Your task to perform on an android device: Go to Amazon Image 0: 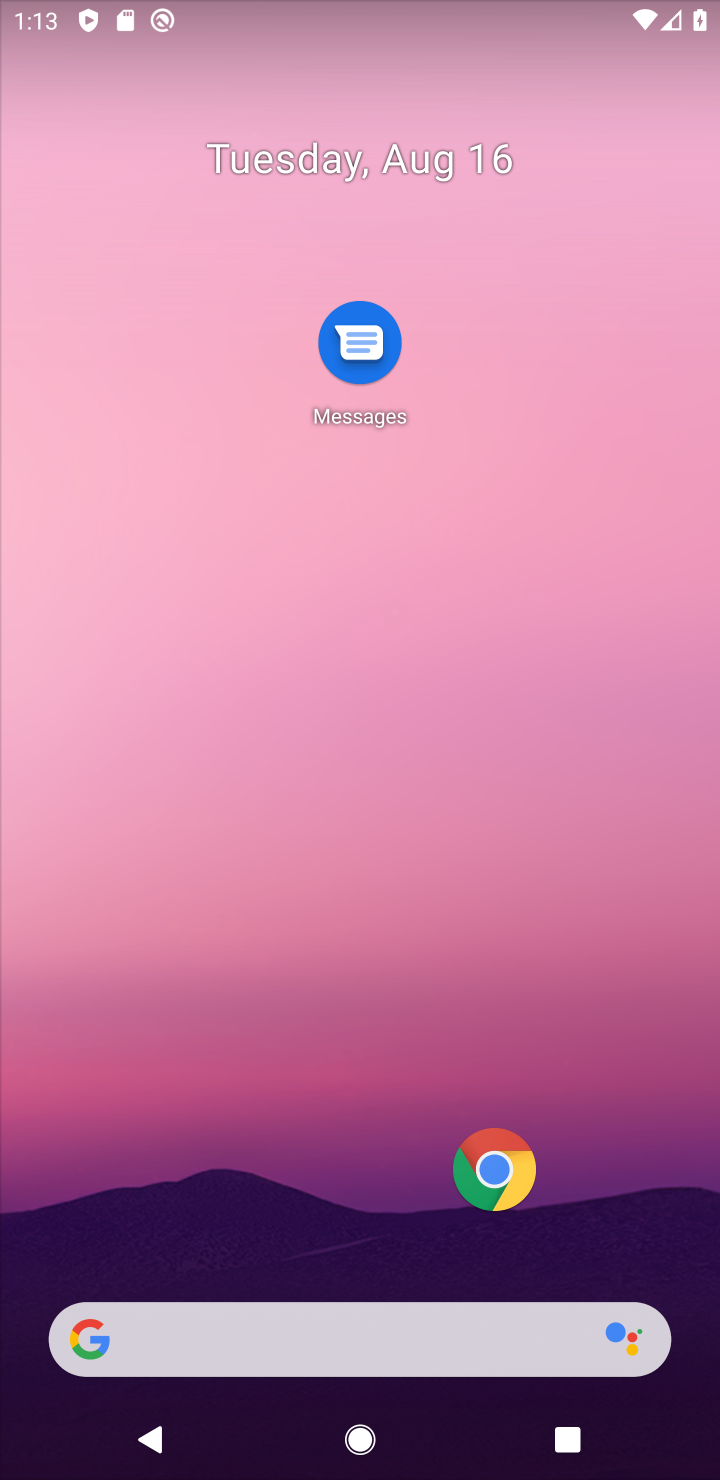
Step 0: click (219, 1339)
Your task to perform on an android device: Go to Amazon Image 1: 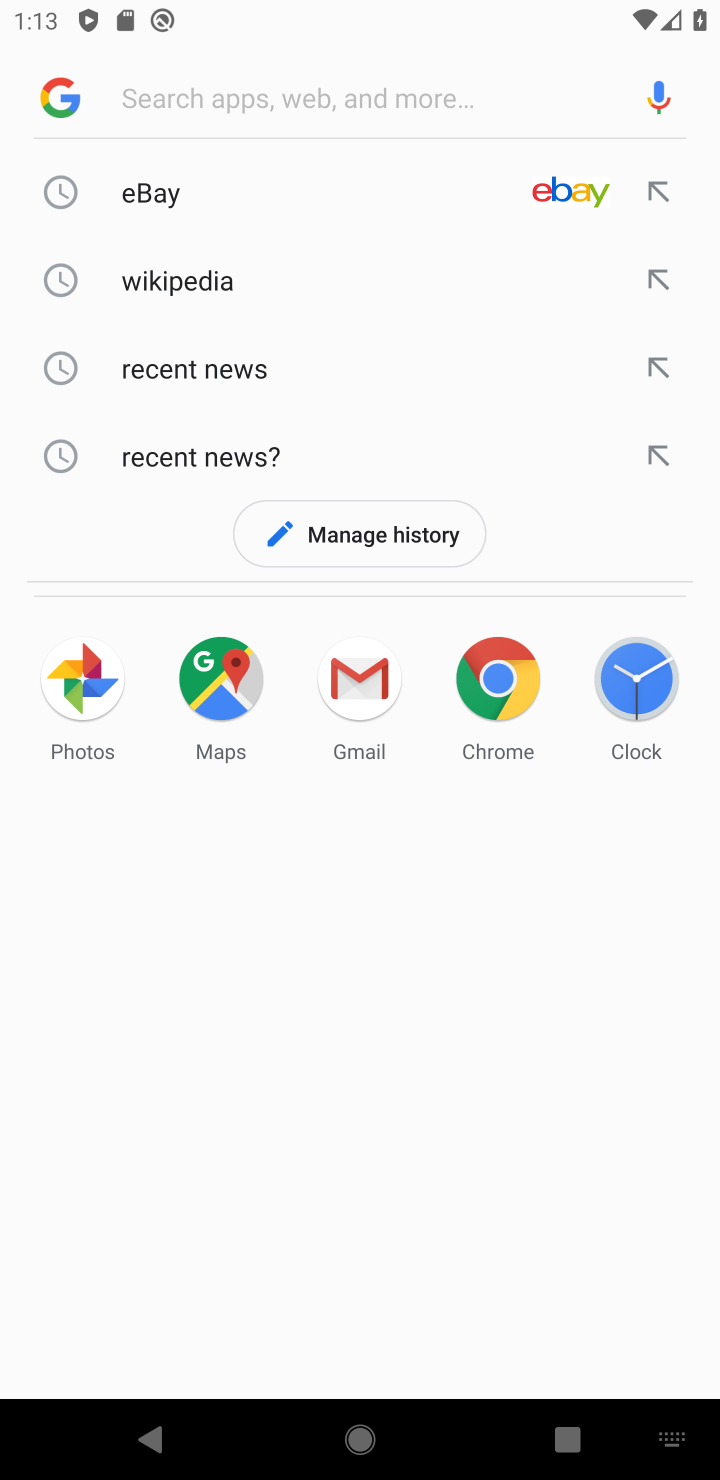
Step 1: type "Amazon"
Your task to perform on an android device: Go to Amazon Image 2: 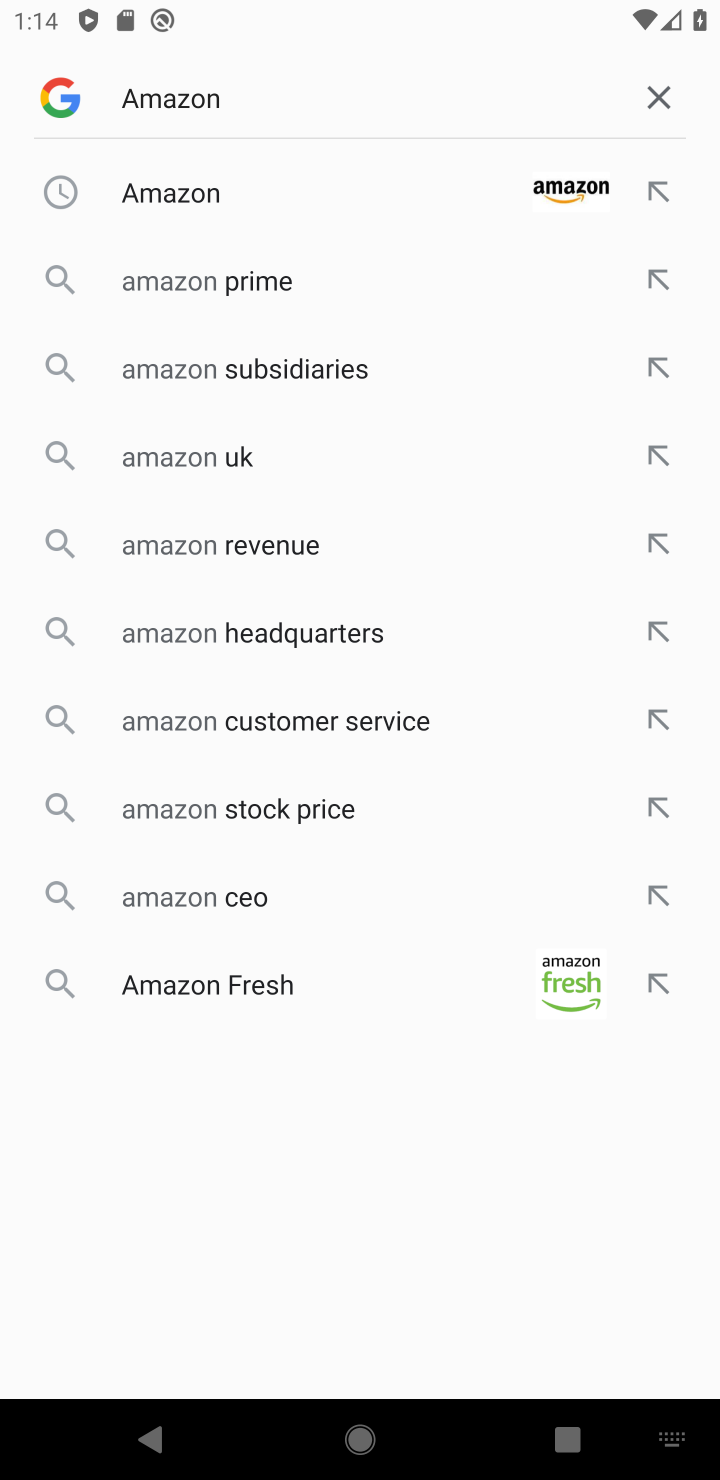
Step 2: click (175, 175)
Your task to perform on an android device: Go to Amazon Image 3: 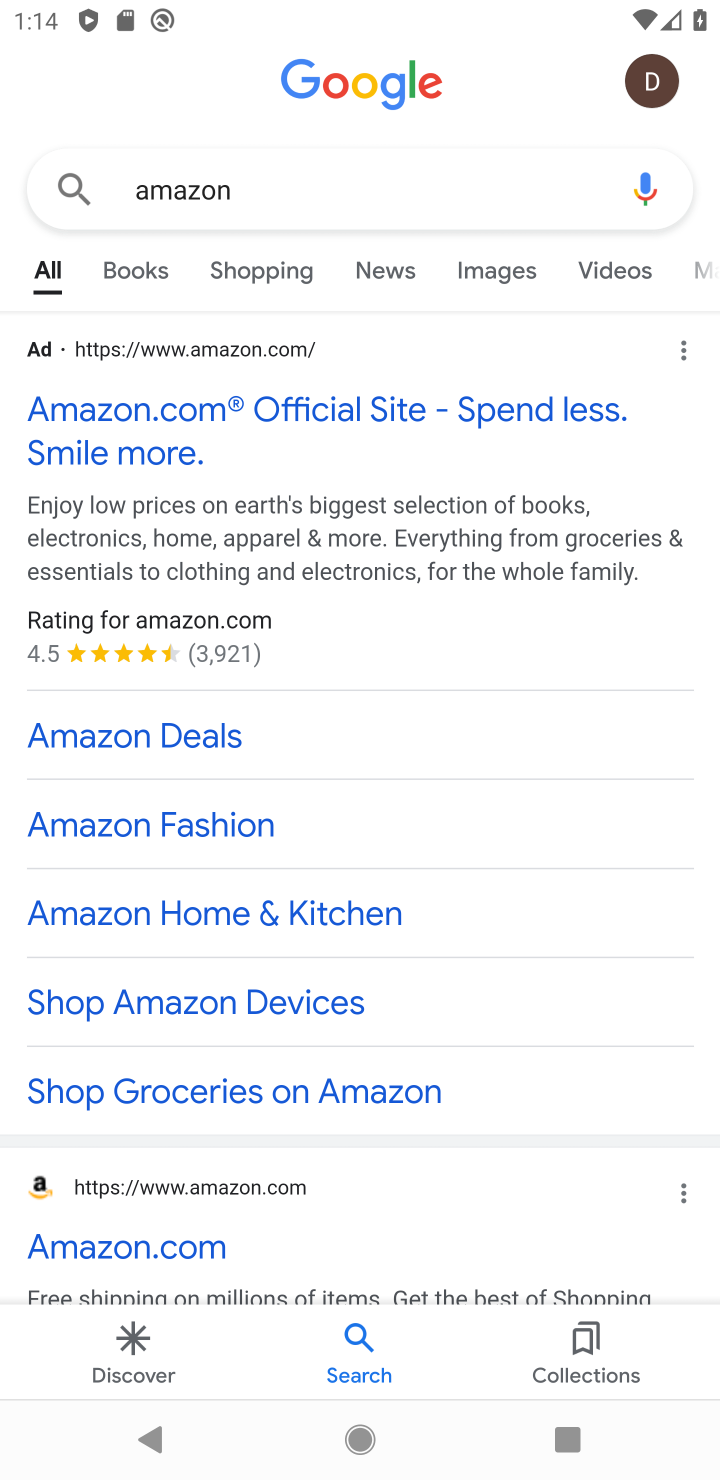
Step 3: task complete